Your task to perform on an android device: Open eBay Image 0: 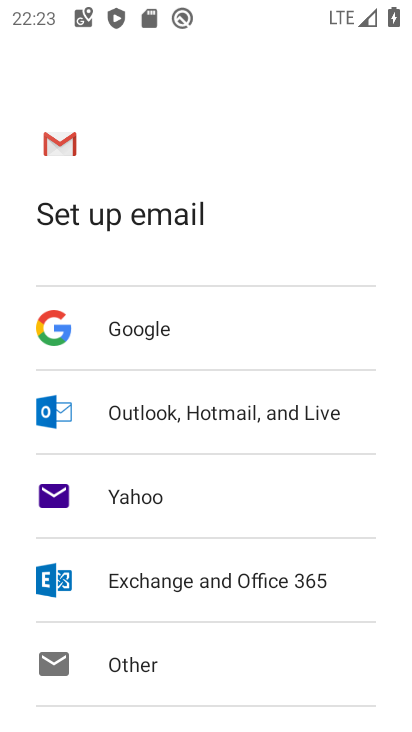
Step 0: press home button
Your task to perform on an android device: Open eBay Image 1: 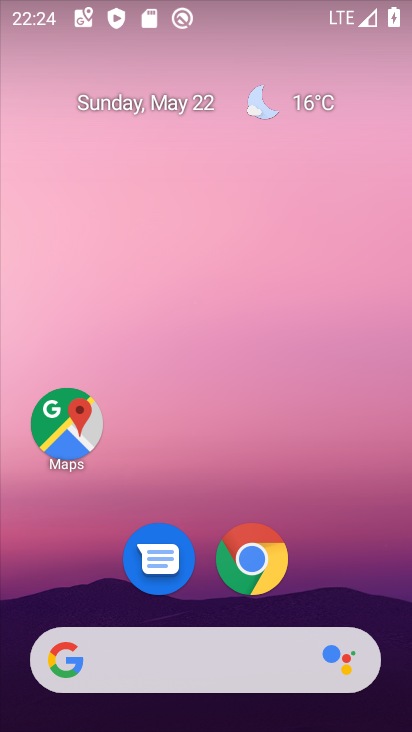
Step 1: drag from (280, 531) to (299, 296)
Your task to perform on an android device: Open eBay Image 2: 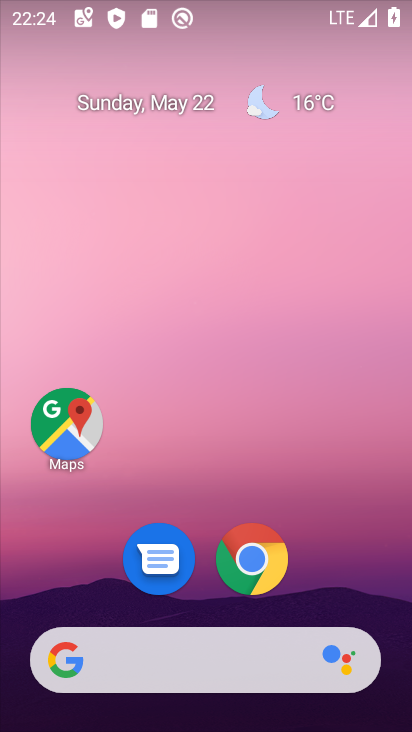
Step 2: drag from (223, 687) to (192, 54)
Your task to perform on an android device: Open eBay Image 3: 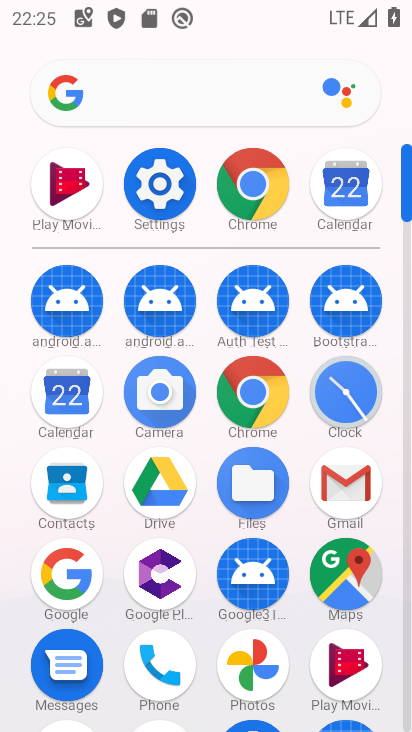
Step 3: click (274, 201)
Your task to perform on an android device: Open eBay Image 4: 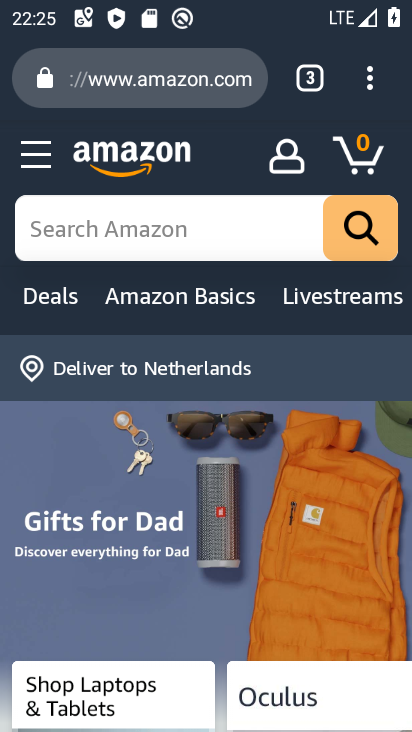
Step 4: click (117, 52)
Your task to perform on an android device: Open eBay Image 5: 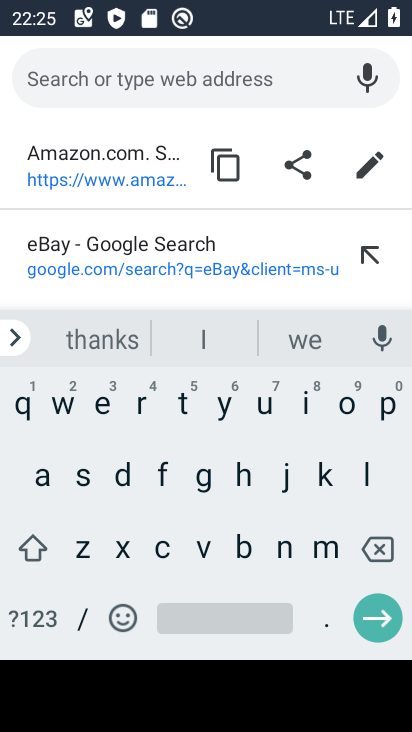
Step 5: click (102, 421)
Your task to perform on an android device: Open eBay Image 6: 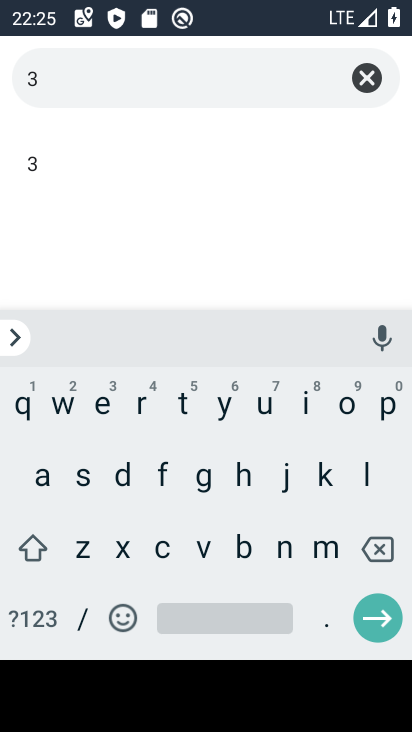
Step 6: click (370, 552)
Your task to perform on an android device: Open eBay Image 7: 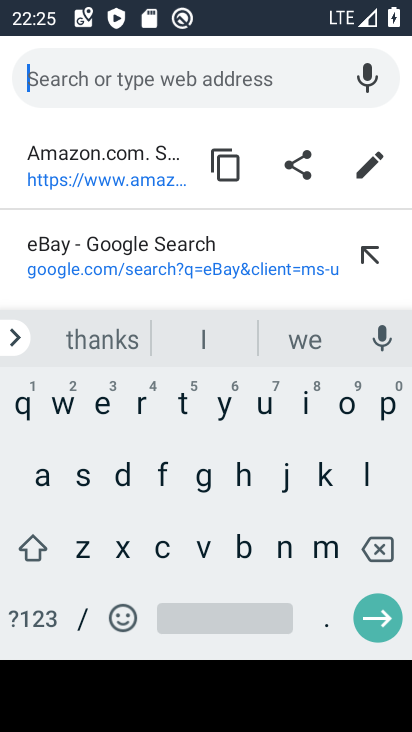
Step 7: click (102, 397)
Your task to perform on an android device: Open eBay Image 8: 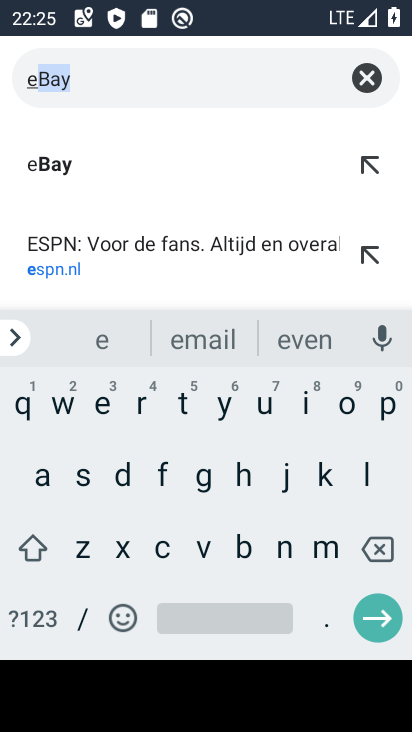
Step 8: click (73, 171)
Your task to perform on an android device: Open eBay Image 9: 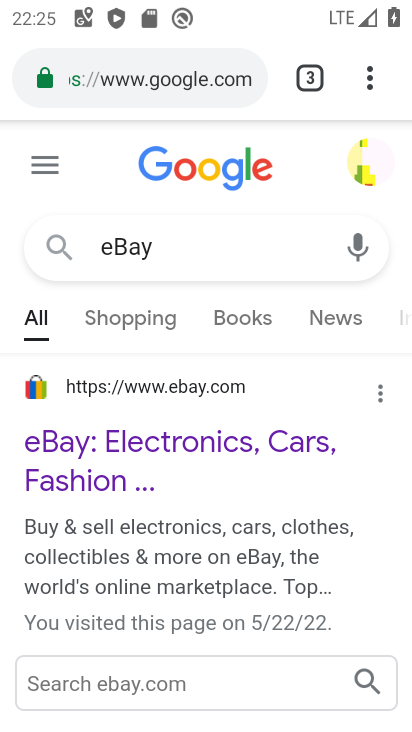
Step 9: click (89, 447)
Your task to perform on an android device: Open eBay Image 10: 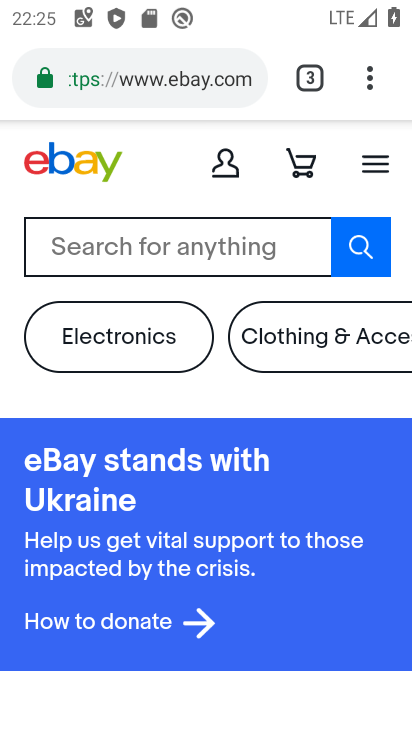
Step 10: task complete